Your task to perform on an android device: empty trash in the gmail app Image 0: 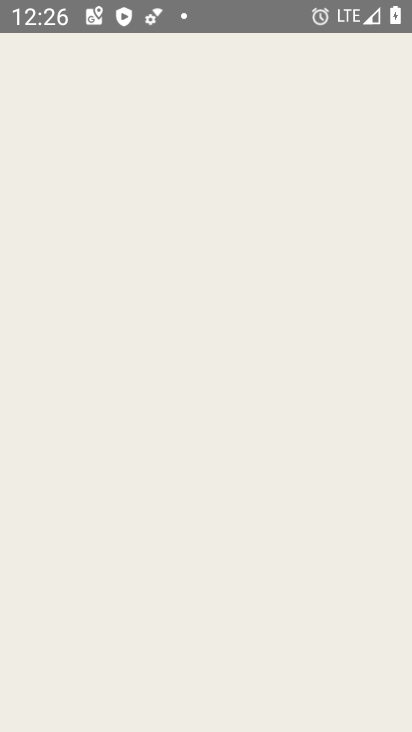
Step 0: press home button
Your task to perform on an android device: empty trash in the gmail app Image 1: 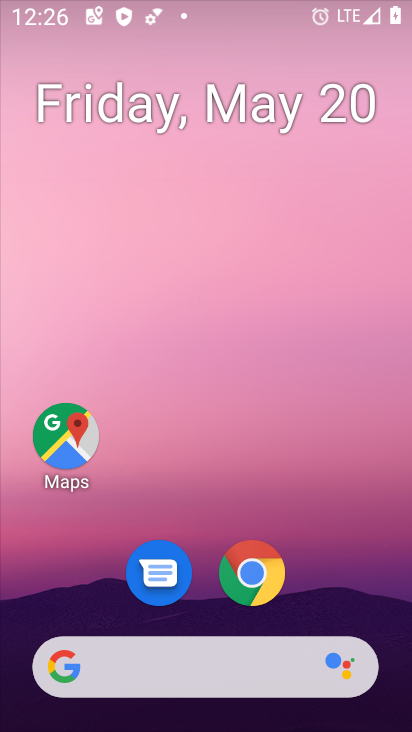
Step 1: drag from (320, 534) to (334, 80)
Your task to perform on an android device: empty trash in the gmail app Image 2: 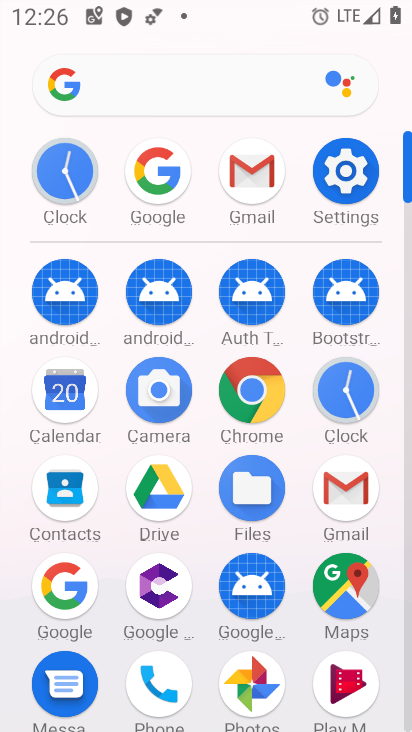
Step 2: click (252, 174)
Your task to perform on an android device: empty trash in the gmail app Image 3: 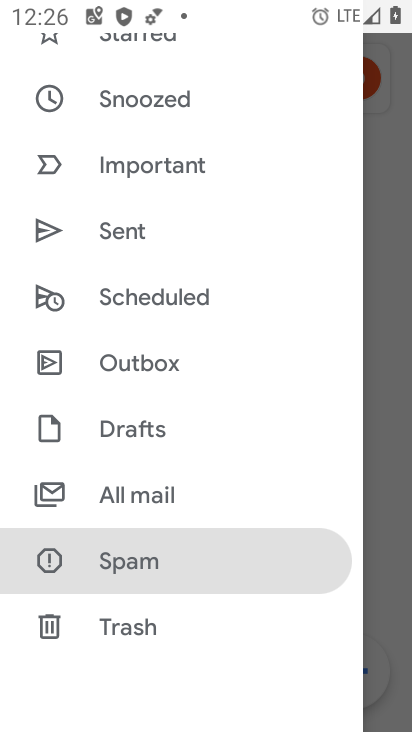
Step 3: drag from (216, 423) to (226, 187)
Your task to perform on an android device: empty trash in the gmail app Image 4: 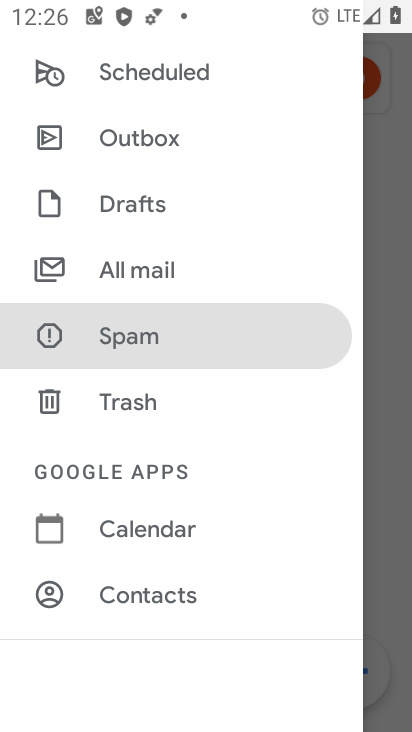
Step 4: click (127, 401)
Your task to perform on an android device: empty trash in the gmail app Image 5: 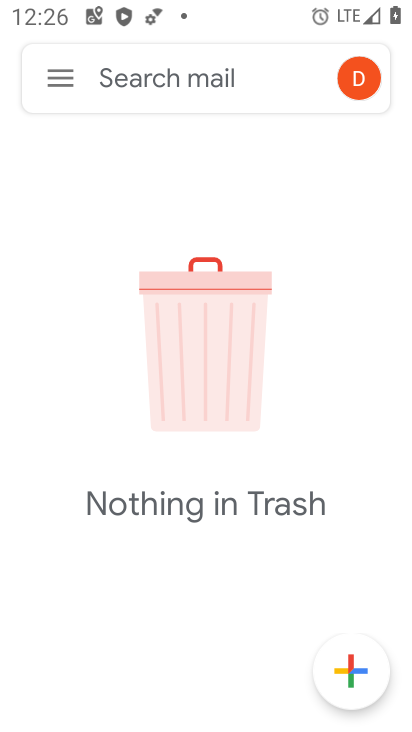
Step 5: task complete